Your task to perform on an android device: turn on wifi Image 0: 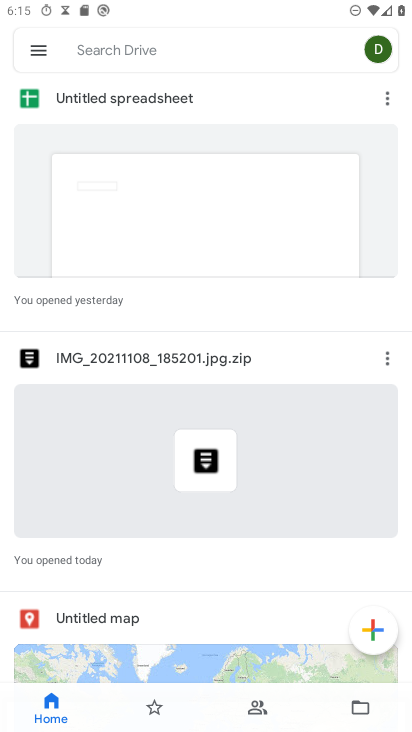
Step 0: press home button
Your task to perform on an android device: turn on wifi Image 1: 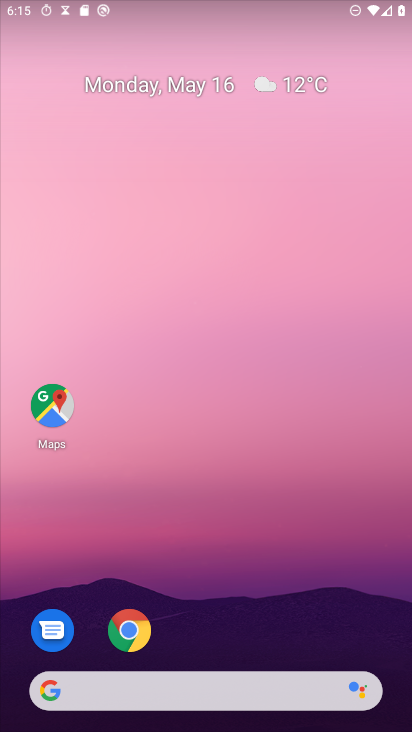
Step 1: task complete